Your task to perform on an android device: Open the phone app and click the voicemail tab. Image 0: 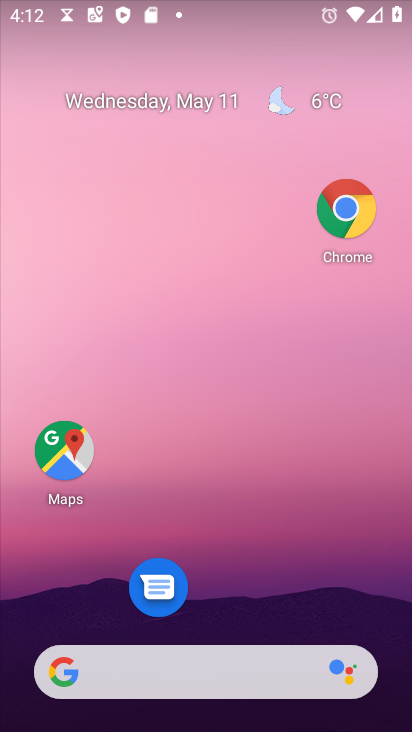
Step 0: drag from (276, 591) to (111, 50)
Your task to perform on an android device: Open the phone app and click the voicemail tab. Image 1: 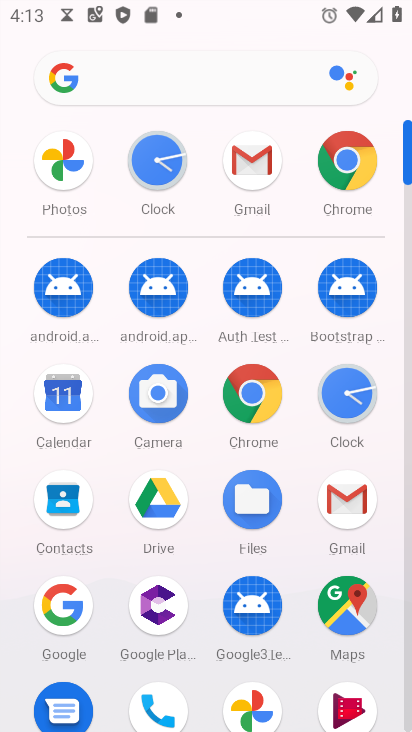
Step 1: drag from (191, 559) to (184, 324)
Your task to perform on an android device: Open the phone app and click the voicemail tab. Image 2: 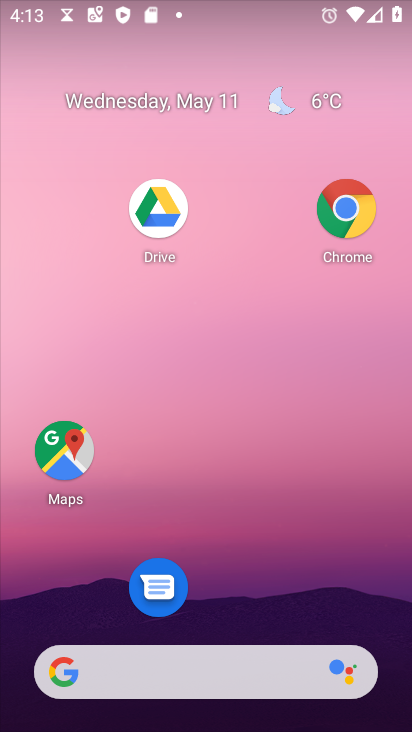
Step 2: drag from (287, 537) to (203, 60)
Your task to perform on an android device: Open the phone app and click the voicemail tab. Image 3: 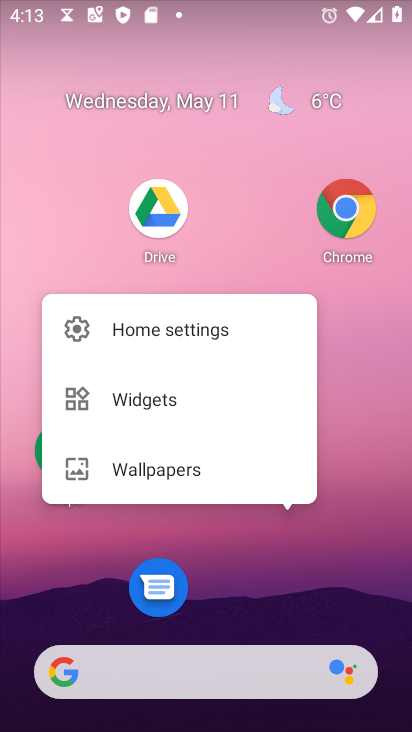
Step 3: click (295, 545)
Your task to perform on an android device: Open the phone app and click the voicemail tab. Image 4: 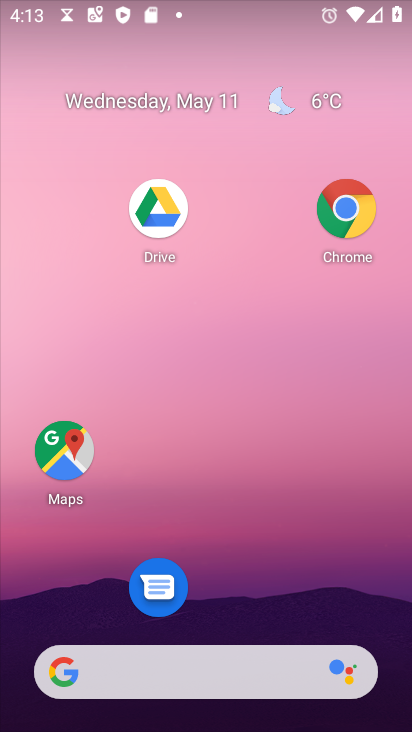
Step 4: click (296, 544)
Your task to perform on an android device: Open the phone app and click the voicemail tab. Image 5: 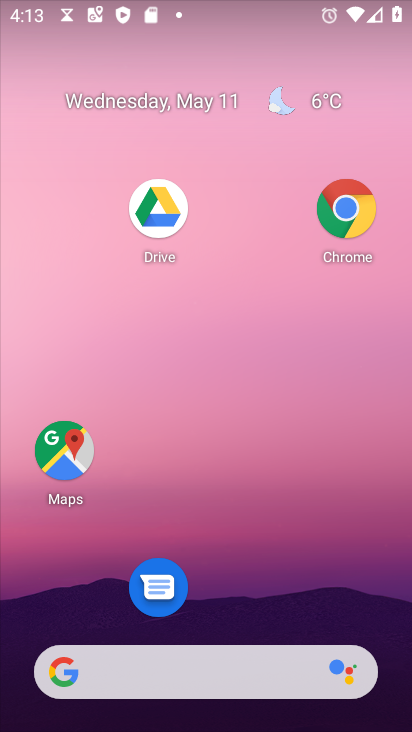
Step 5: drag from (296, 544) to (260, 316)
Your task to perform on an android device: Open the phone app and click the voicemail tab. Image 6: 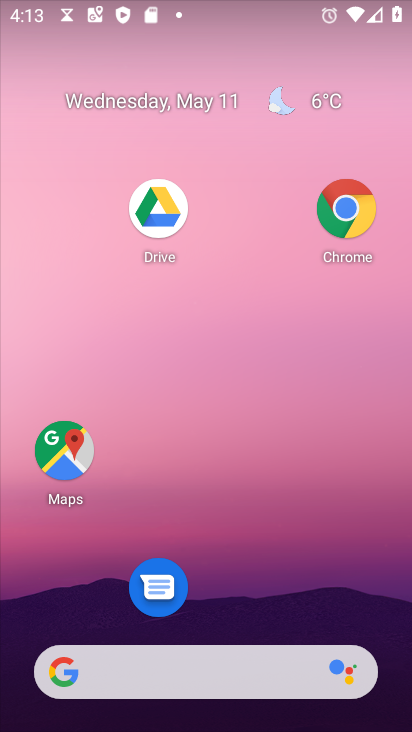
Step 6: drag from (279, 556) to (321, 260)
Your task to perform on an android device: Open the phone app and click the voicemail tab. Image 7: 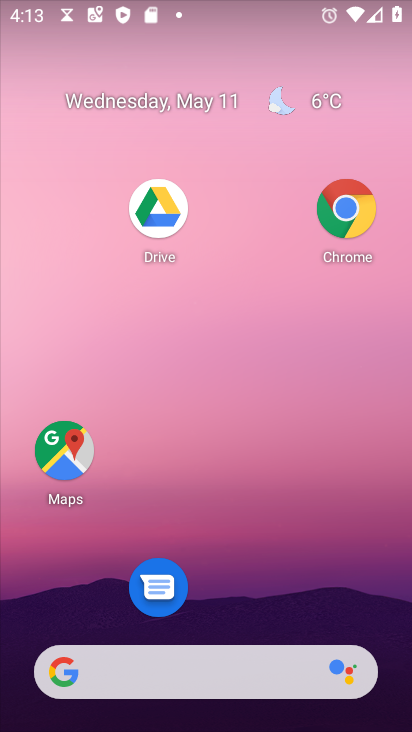
Step 7: drag from (252, 599) to (245, 261)
Your task to perform on an android device: Open the phone app and click the voicemail tab. Image 8: 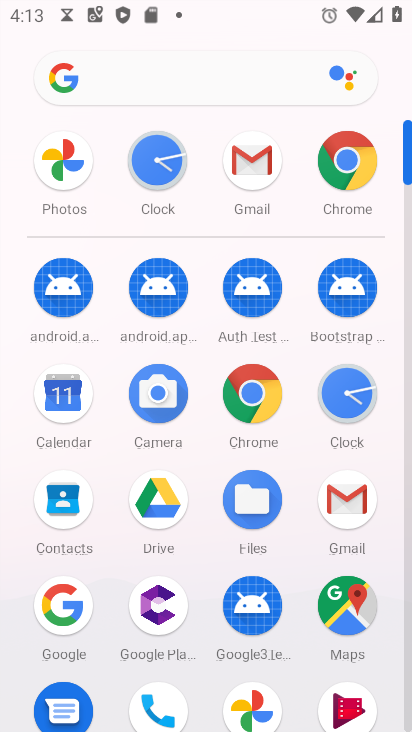
Step 8: click (159, 688)
Your task to perform on an android device: Open the phone app and click the voicemail tab. Image 9: 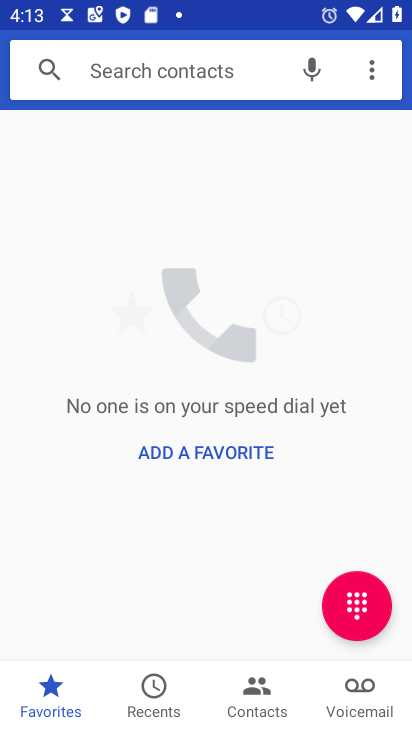
Step 9: click (364, 681)
Your task to perform on an android device: Open the phone app and click the voicemail tab. Image 10: 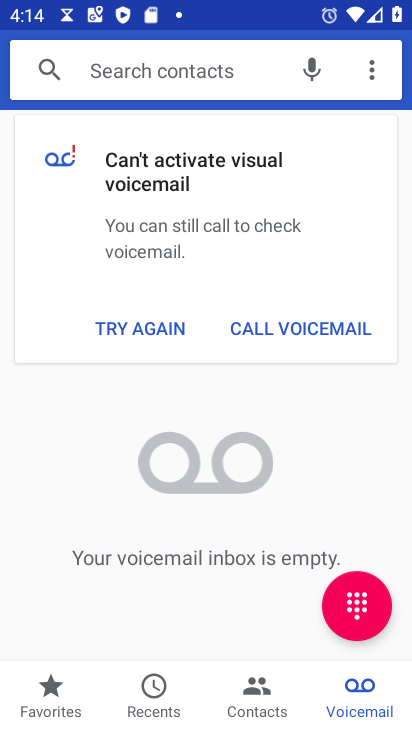
Step 10: task complete